Your task to perform on an android device: Find coffee shops on Maps Image 0: 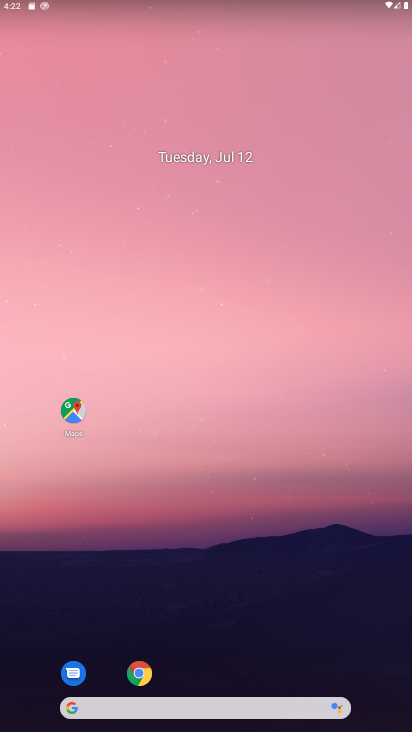
Step 0: drag from (196, 689) to (330, 80)
Your task to perform on an android device: Find coffee shops on Maps Image 1: 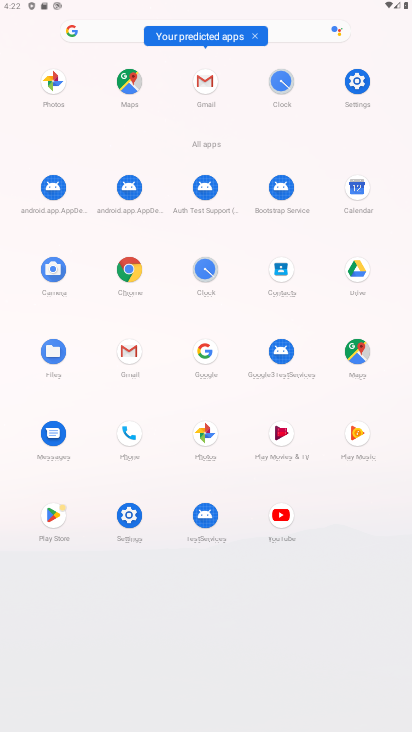
Step 1: click (344, 350)
Your task to perform on an android device: Find coffee shops on Maps Image 2: 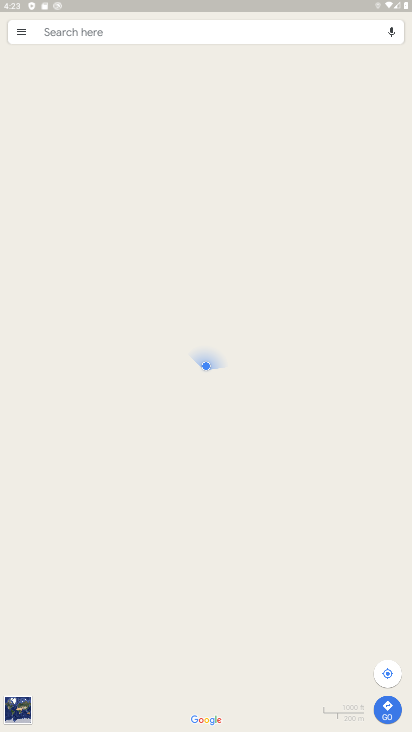
Step 2: click (121, 34)
Your task to perform on an android device: Find coffee shops on Maps Image 3: 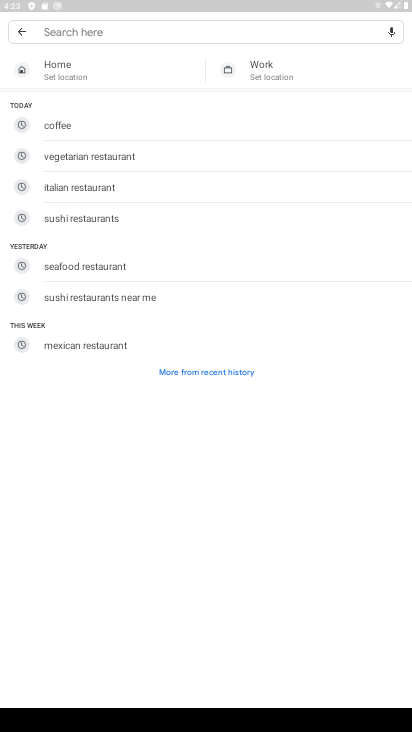
Step 3: type "Coffee shops"
Your task to perform on an android device: Find coffee shops on Maps Image 4: 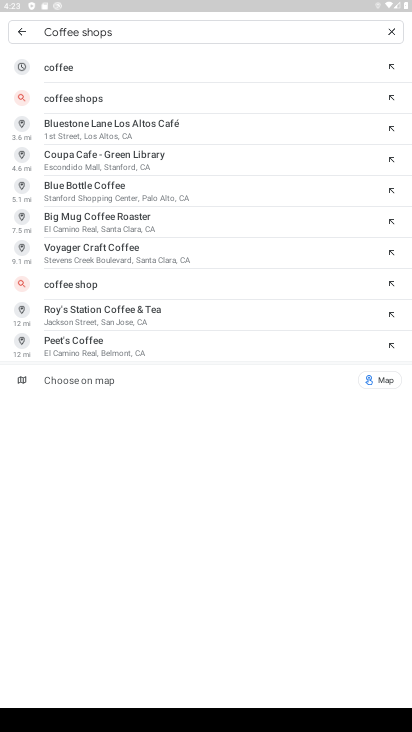
Step 4: click (111, 97)
Your task to perform on an android device: Find coffee shops on Maps Image 5: 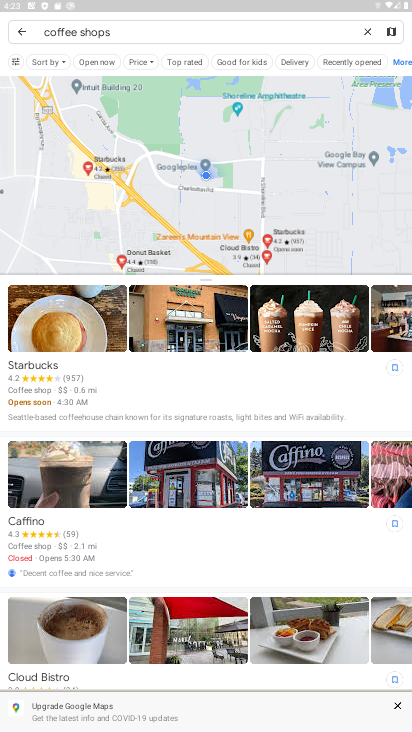
Step 5: task complete